Your task to perform on an android device: What's the weather going to be tomorrow? Image 0: 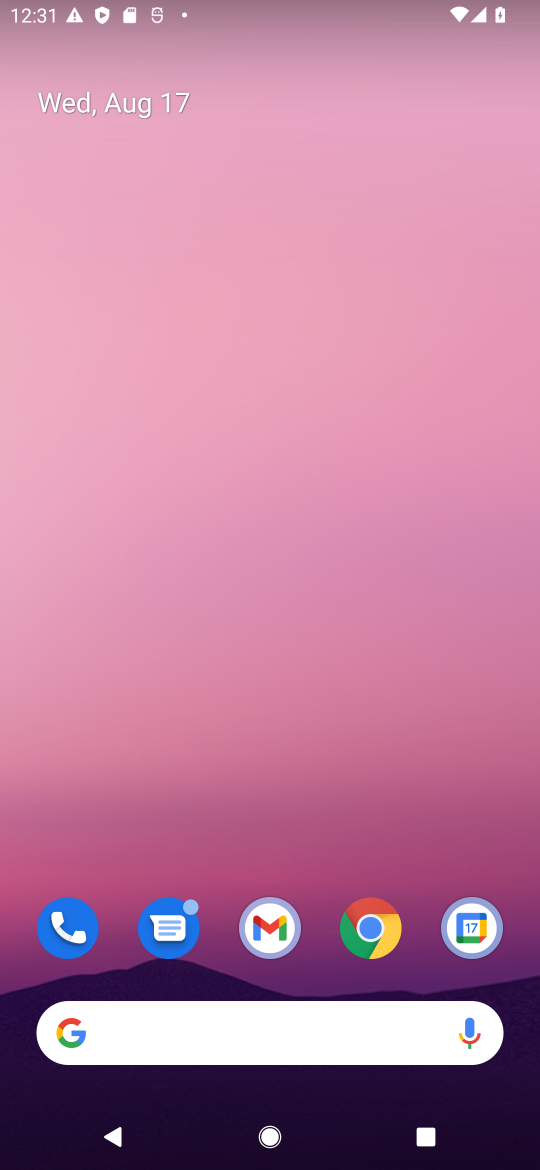
Step 0: drag from (315, 840) to (305, 225)
Your task to perform on an android device: What's the weather going to be tomorrow? Image 1: 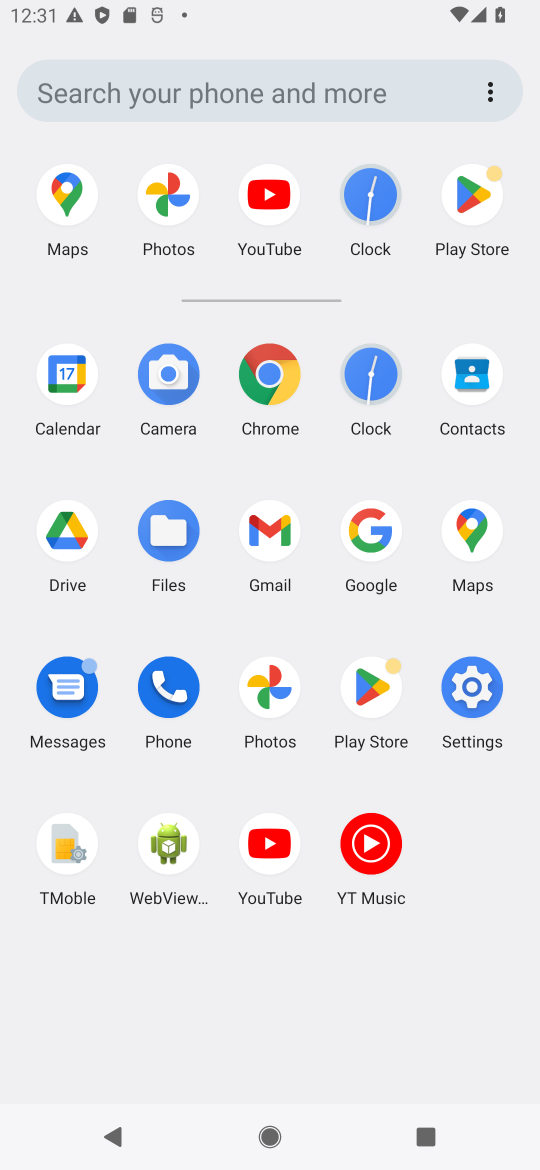
Step 1: click (354, 529)
Your task to perform on an android device: What's the weather going to be tomorrow? Image 2: 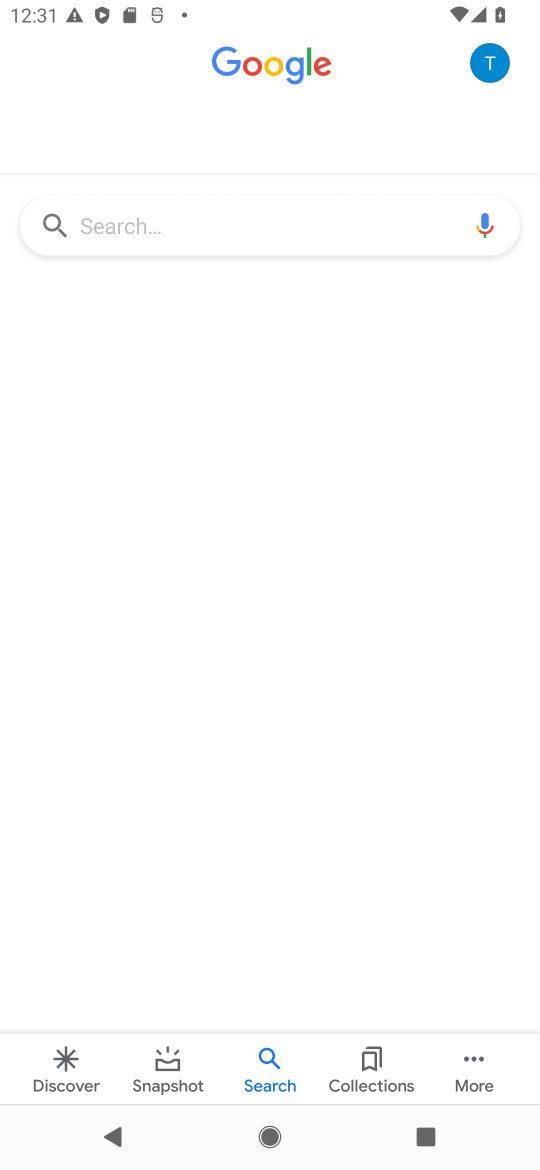
Step 2: click (238, 229)
Your task to perform on an android device: What's the weather going to be tomorrow? Image 3: 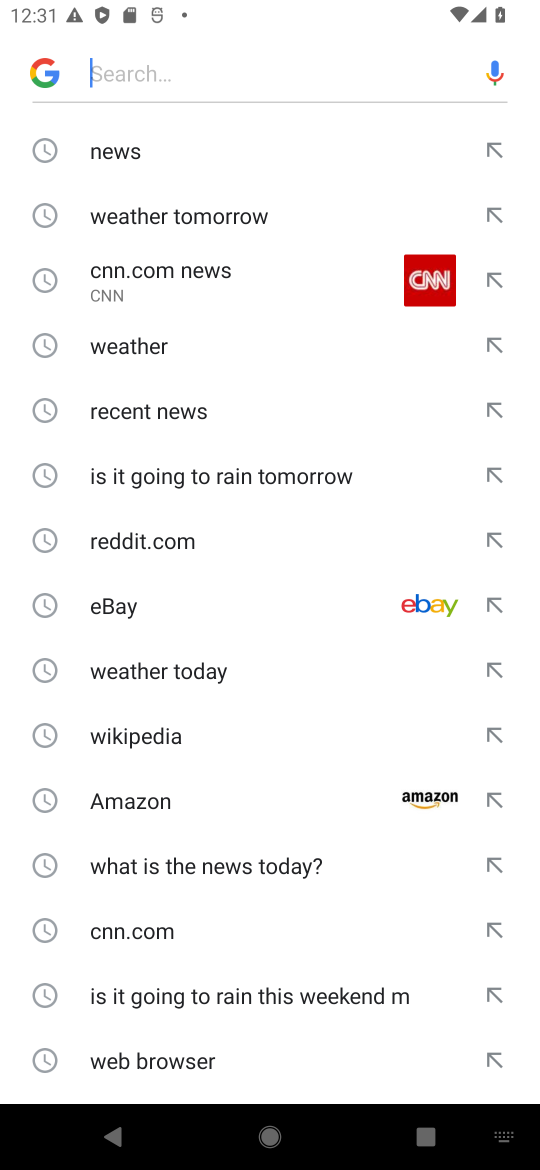
Step 3: click (175, 355)
Your task to perform on an android device: What's the weather going to be tomorrow? Image 4: 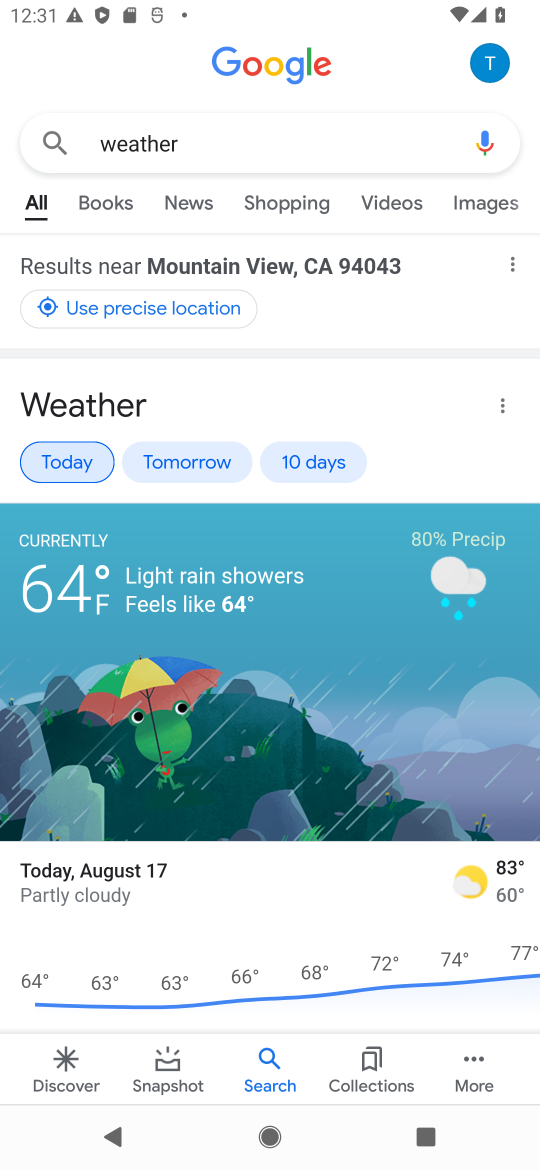
Step 4: click (169, 466)
Your task to perform on an android device: What's the weather going to be tomorrow? Image 5: 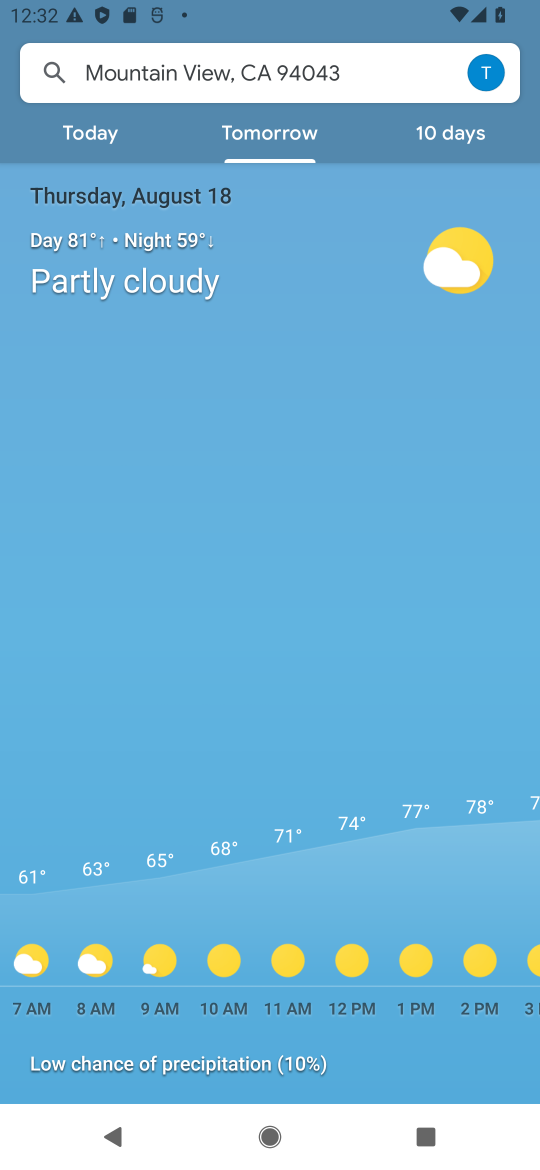
Step 5: task complete